Your task to perform on an android device: turn off javascript in the chrome app Image 0: 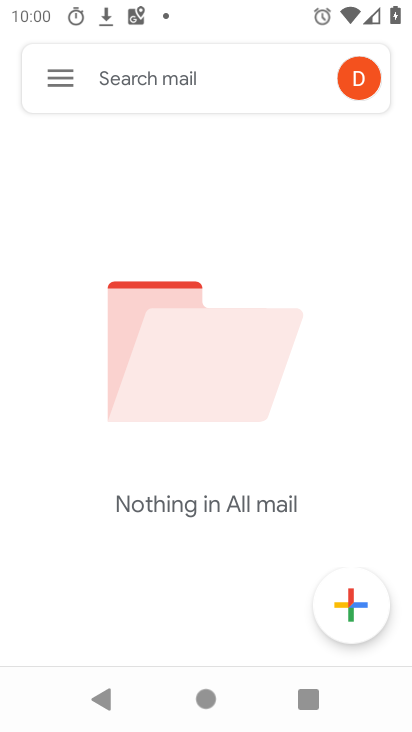
Step 0: press home button
Your task to perform on an android device: turn off javascript in the chrome app Image 1: 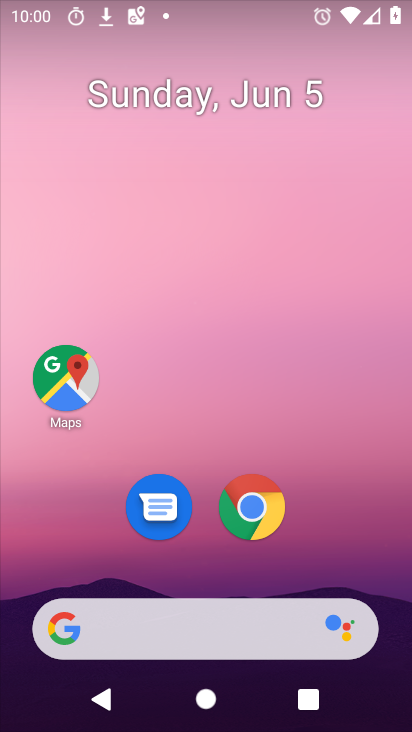
Step 1: drag from (251, 560) to (263, 173)
Your task to perform on an android device: turn off javascript in the chrome app Image 2: 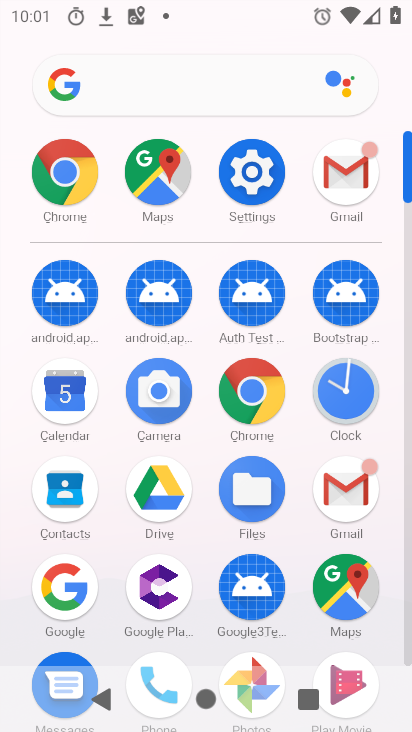
Step 2: click (78, 203)
Your task to perform on an android device: turn off javascript in the chrome app Image 3: 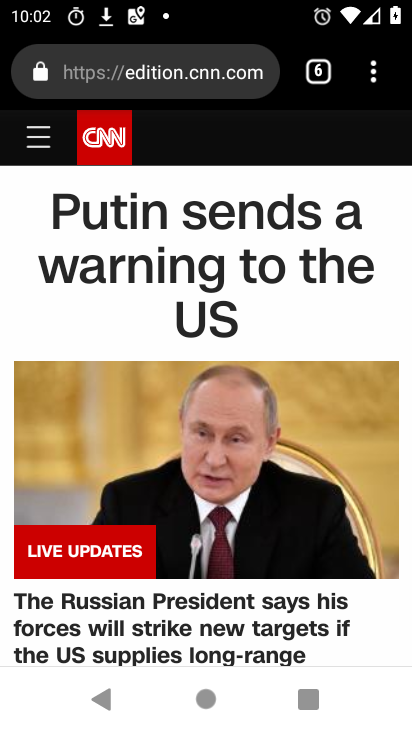
Step 3: click (358, 83)
Your task to perform on an android device: turn off javascript in the chrome app Image 4: 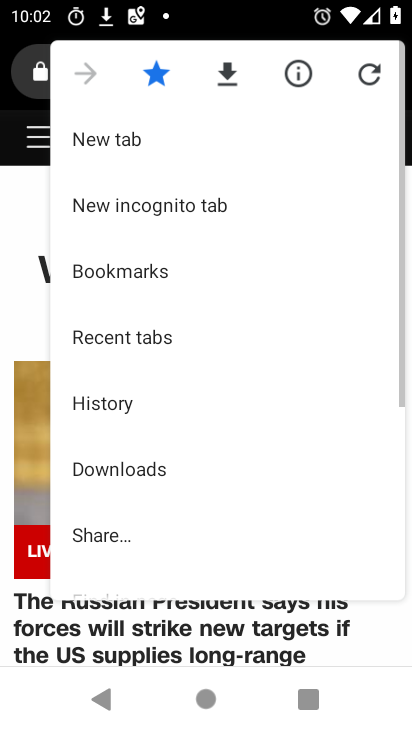
Step 4: drag from (150, 494) to (181, 314)
Your task to perform on an android device: turn off javascript in the chrome app Image 5: 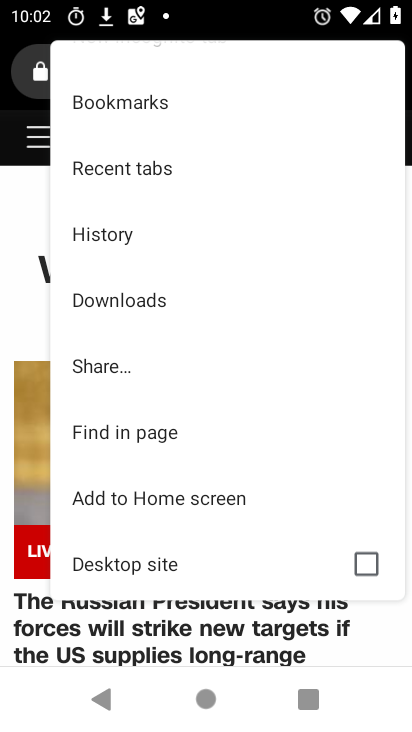
Step 5: drag from (146, 531) to (199, 294)
Your task to perform on an android device: turn off javascript in the chrome app Image 6: 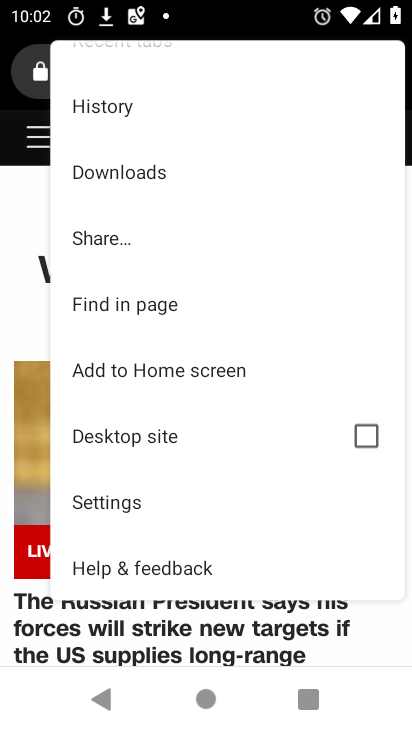
Step 6: click (161, 504)
Your task to perform on an android device: turn off javascript in the chrome app Image 7: 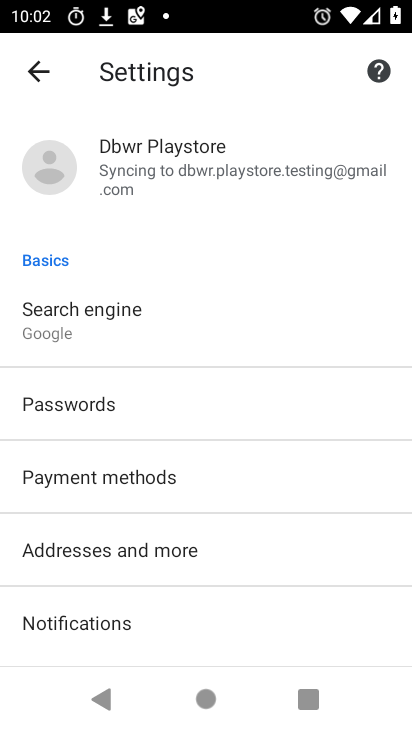
Step 7: drag from (128, 604) to (168, 410)
Your task to perform on an android device: turn off javascript in the chrome app Image 8: 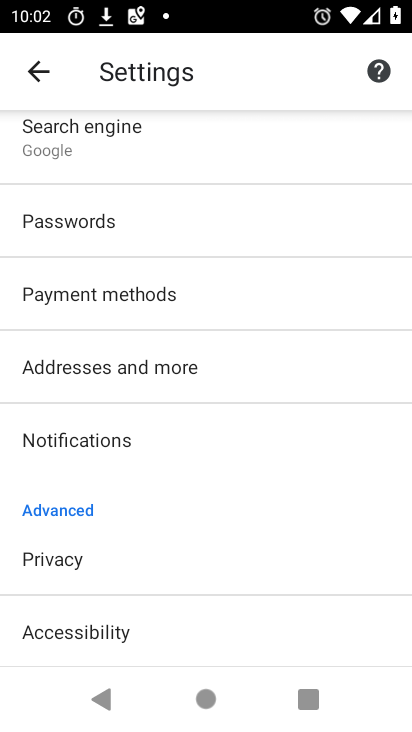
Step 8: click (102, 352)
Your task to perform on an android device: turn off javascript in the chrome app Image 9: 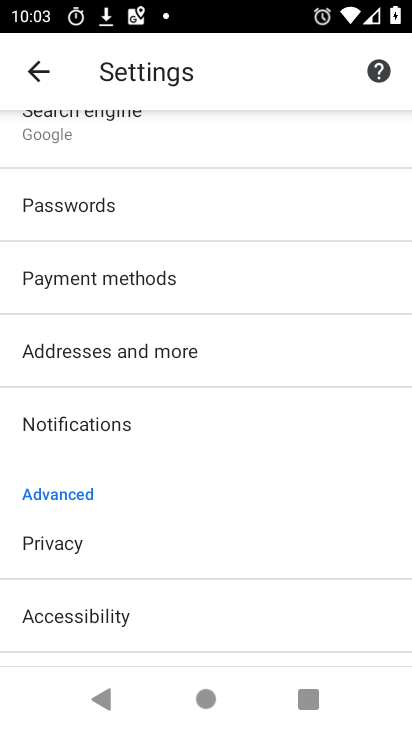
Step 9: drag from (130, 561) to (125, 431)
Your task to perform on an android device: turn off javascript in the chrome app Image 10: 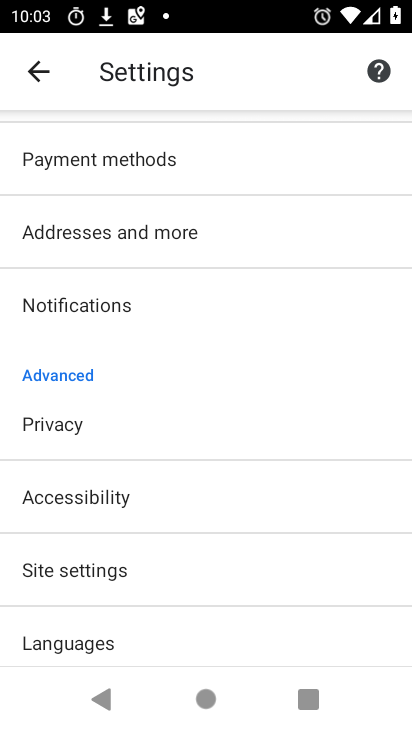
Step 10: click (133, 567)
Your task to perform on an android device: turn off javascript in the chrome app Image 11: 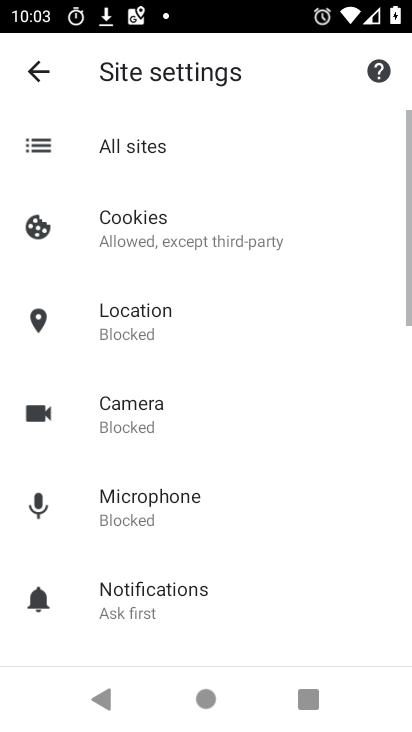
Step 11: drag from (196, 547) to (197, 350)
Your task to perform on an android device: turn off javascript in the chrome app Image 12: 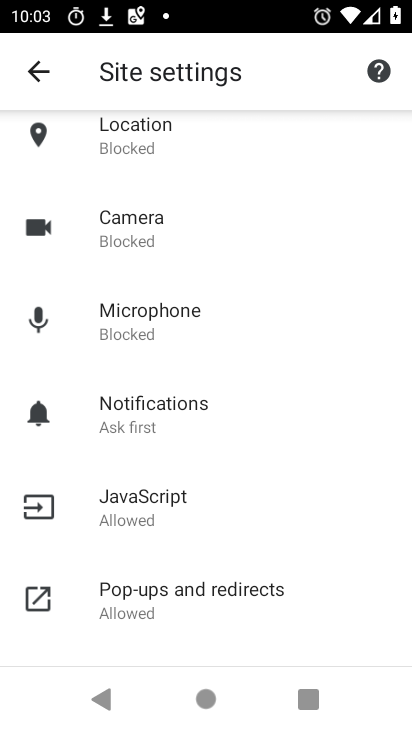
Step 12: click (188, 496)
Your task to perform on an android device: turn off javascript in the chrome app Image 13: 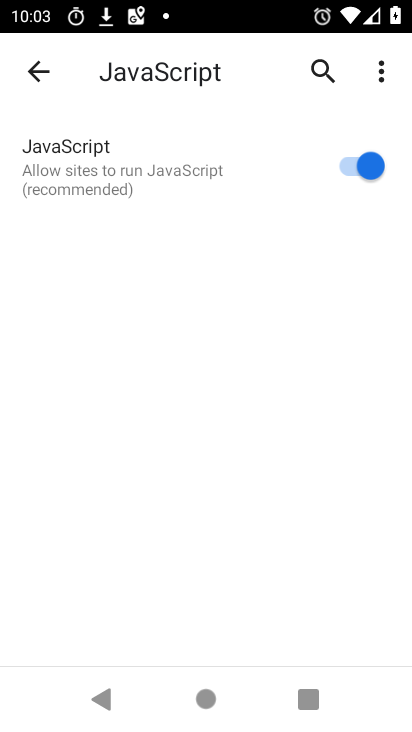
Step 13: click (351, 146)
Your task to perform on an android device: turn off javascript in the chrome app Image 14: 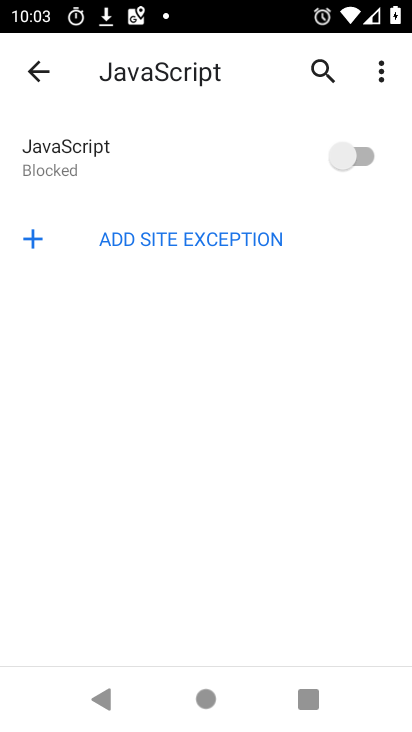
Step 14: task complete